Your task to perform on an android device: Go to Amazon Image 0: 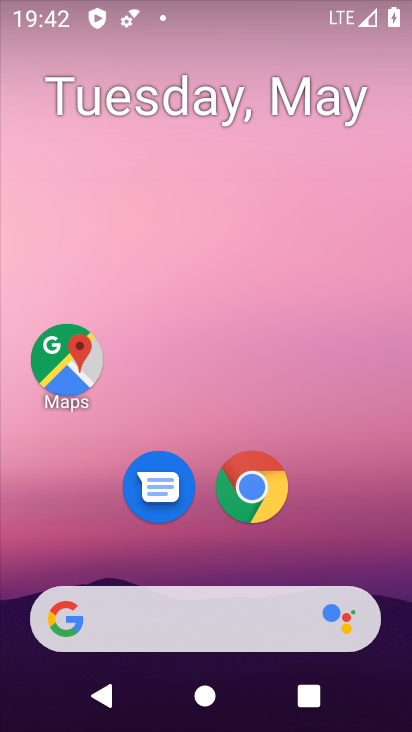
Step 0: click (251, 477)
Your task to perform on an android device: Go to Amazon Image 1: 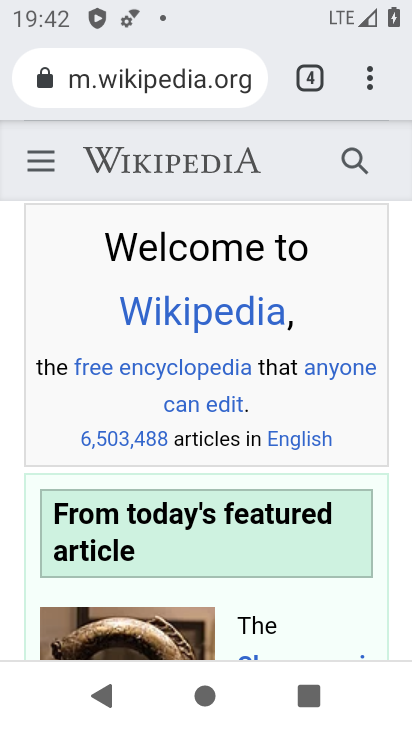
Step 1: task complete